Your task to perform on an android device: Open calendar and show me the first week of next month Image 0: 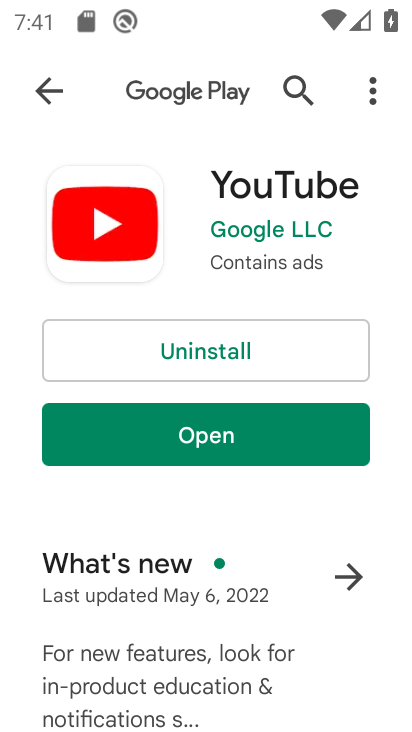
Step 0: press home button
Your task to perform on an android device: Open calendar and show me the first week of next month Image 1: 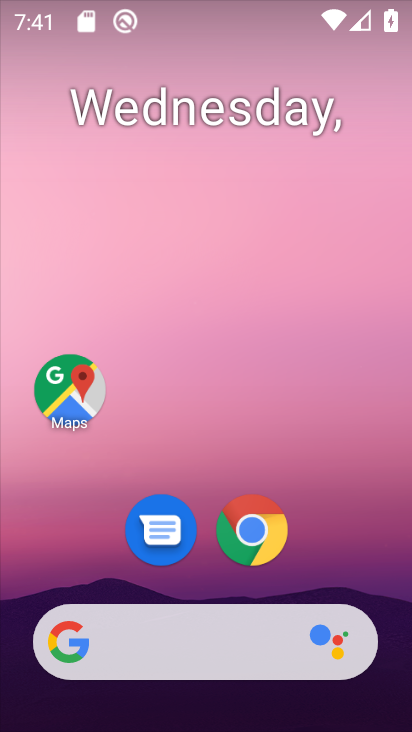
Step 1: drag from (394, 631) to (278, 62)
Your task to perform on an android device: Open calendar and show me the first week of next month Image 2: 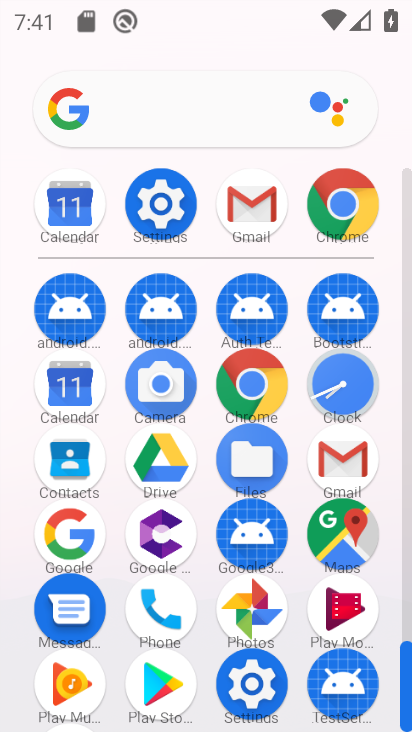
Step 2: click (81, 398)
Your task to perform on an android device: Open calendar and show me the first week of next month Image 3: 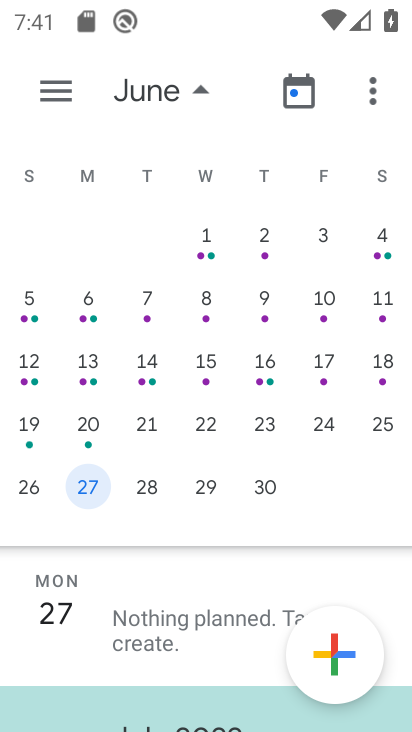
Step 3: drag from (359, 414) to (36, 291)
Your task to perform on an android device: Open calendar and show me the first week of next month Image 4: 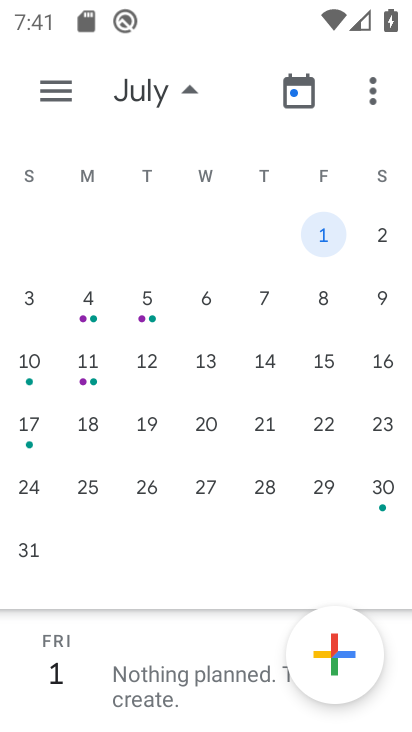
Step 4: click (154, 297)
Your task to perform on an android device: Open calendar and show me the first week of next month Image 5: 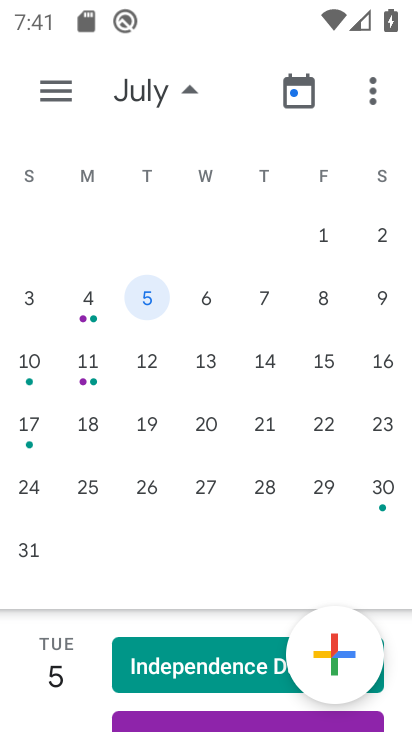
Step 5: task complete